Your task to perform on an android device: clear history in the chrome app Image 0: 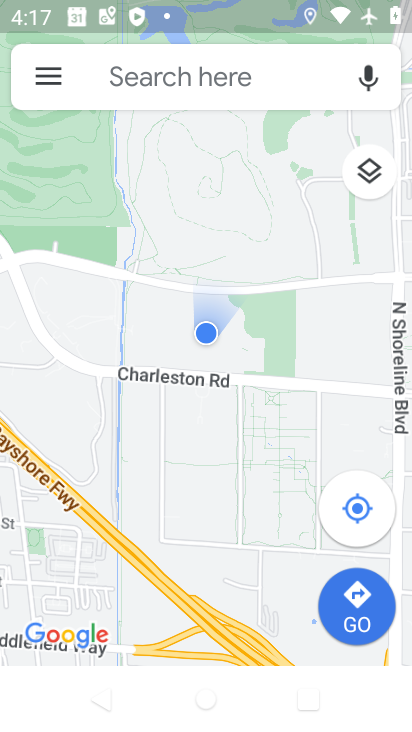
Step 0: press back button
Your task to perform on an android device: clear history in the chrome app Image 1: 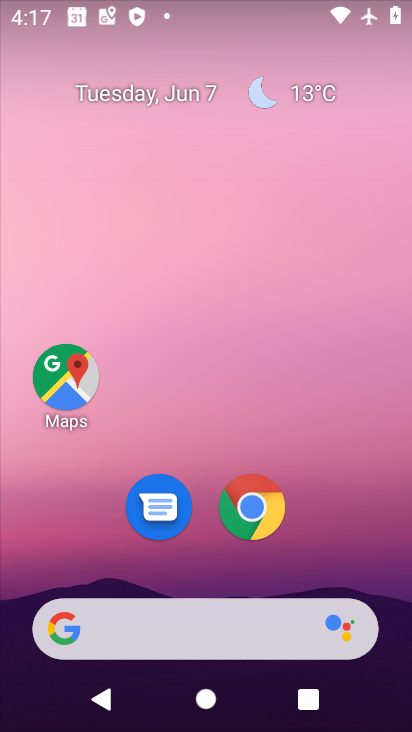
Step 1: drag from (358, 532) to (251, 1)
Your task to perform on an android device: clear history in the chrome app Image 2: 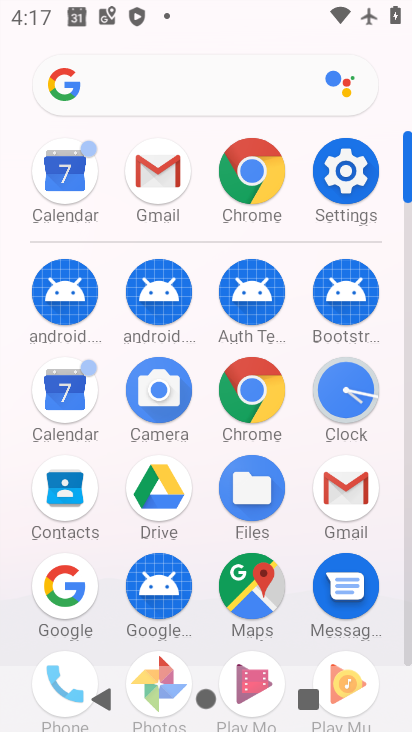
Step 2: drag from (0, 590) to (18, 234)
Your task to perform on an android device: clear history in the chrome app Image 3: 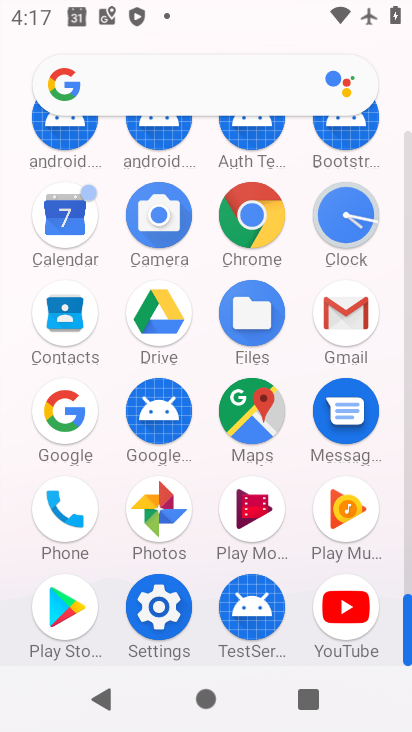
Step 3: click (250, 207)
Your task to perform on an android device: clear history in the chrome app Image 4: 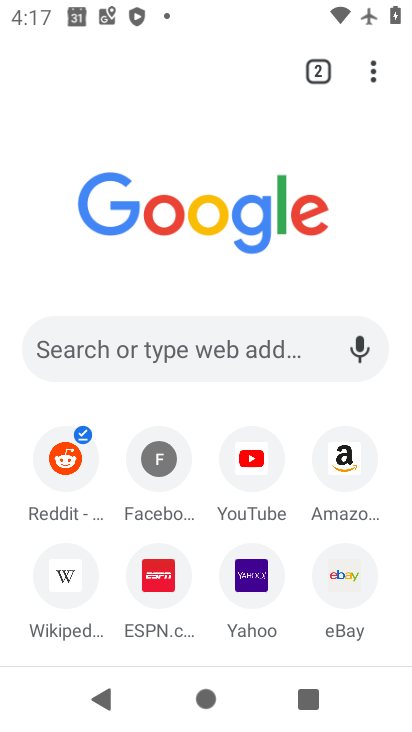
Step 4: drag from (369, 59) to (121, 392)
Your task to perform on an android device: clear history in the chrome app Image 5: 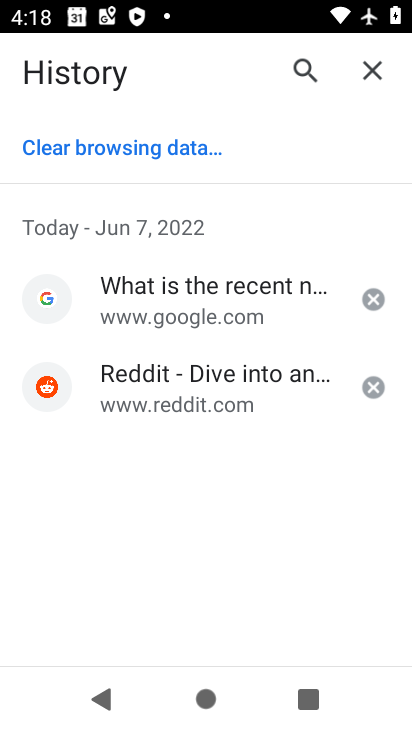
Step 5: click (142, 139)
Your task to perform on an android device: clear history in the chrome app Image 6: 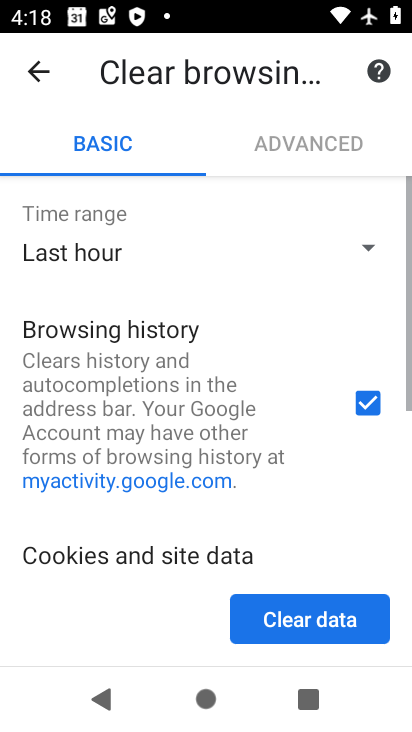
Step 6: drag from (281, 479) to (262, 268)
Your task to perform on an android device: clear history in the chrome app Image 7: 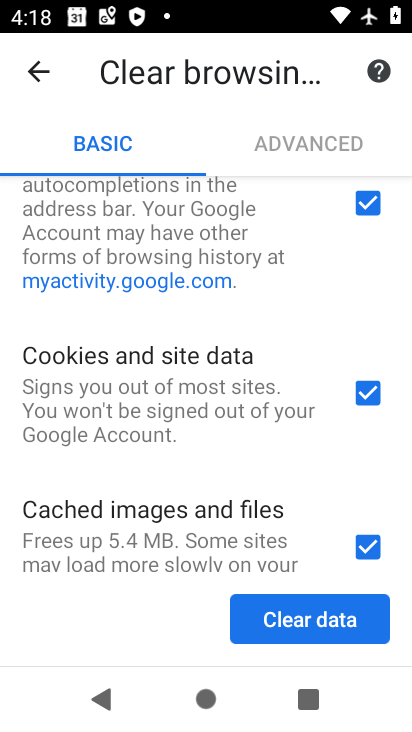
Step 7: drag from (243, 538) to (266, 268)
Your task to perform on an android device: clear history in the chrome app Image 8: 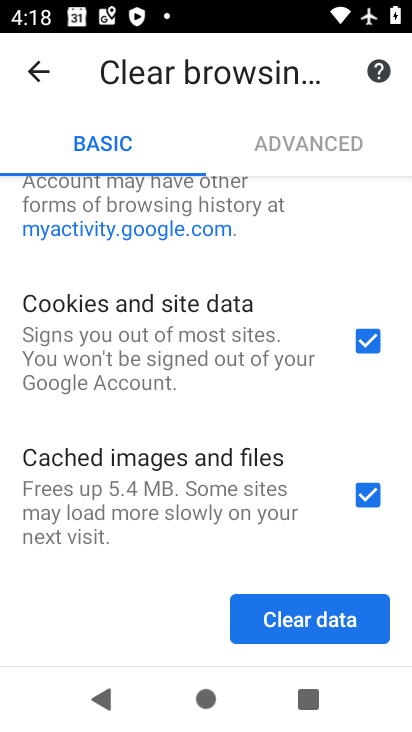
Step 8: click (306, 618)
Your task to perform on an android device: clear history in the chrome app Image 9: 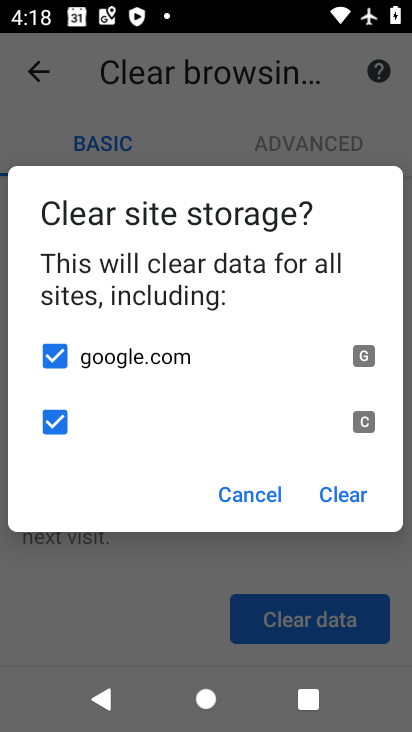
Step 9: click (334, 497)
Your task to perform on an android device: clear history in the chrome app Image 10: 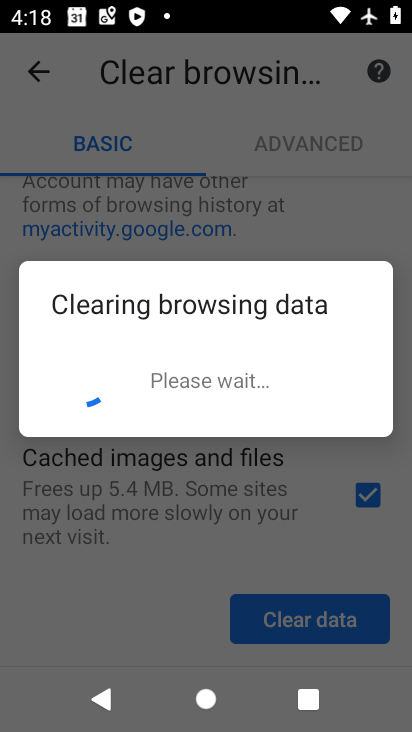
Step 10: task complete